Your task to perform on an android device: Add "razer blackwidow" to the cart on walmart.com Image 0: 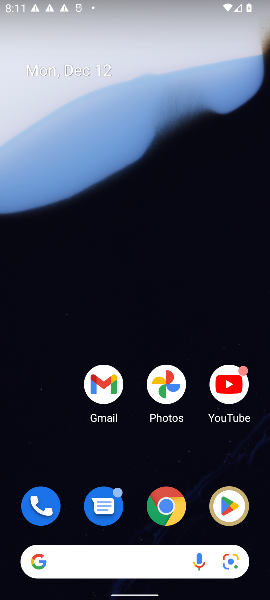
Step 0: click (137, 555)
Your task to perform on an android device: Add "razer blackwidow" to the cart on walmart.com Image 1: 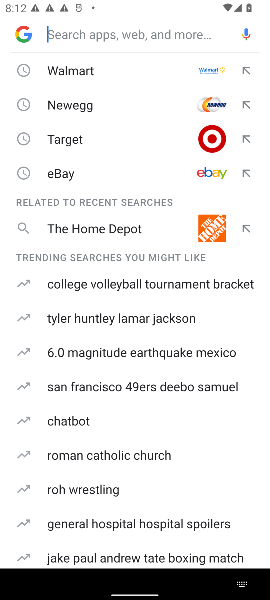
Step 1: type "walmart"
Your task to perform on an android device: Add "razer blackwidow" to the cart on walmart.com Image 2: 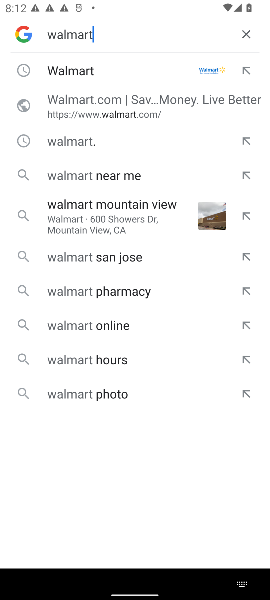
Step 2: type "''"
Your task to perform on an android device: Add "razer blackwidow" to the cart on walmart.com Image 3: 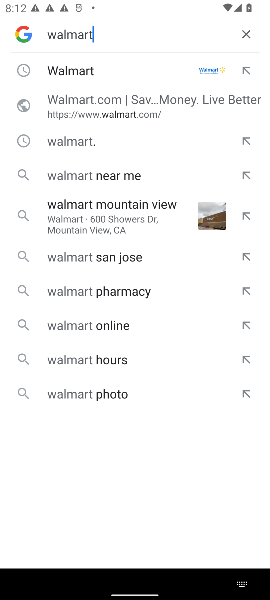
Step 3: click (89, 73)
Your task to perform on an android device: Add "razer blackwidow" to the cart on walmart.com Image 4: 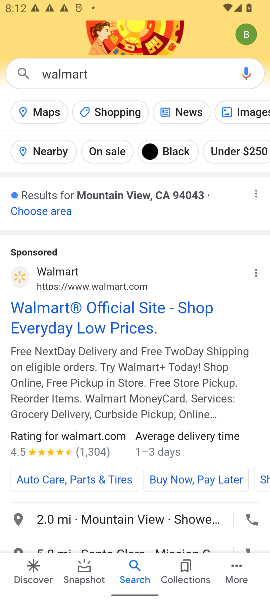
Step 4: click (119, 326)
Your task to perform on an android device: Add "razer blackwidow" to the cart on walmart.com Image 5: 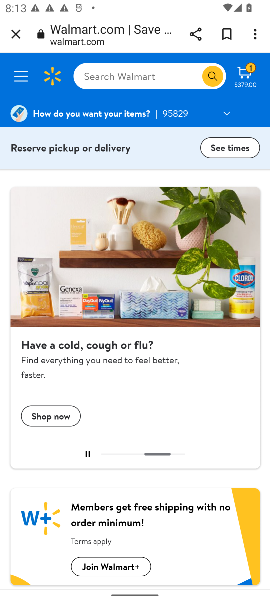
Step 5: click (119, 326)
Your task to perform on an android device: Add "razer blackwidow" to the cart on walmart.com Image 6: 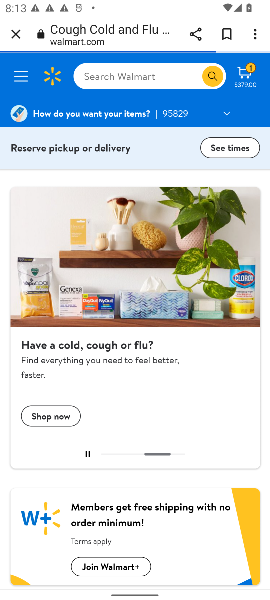
Step 6: click (126, 82)
Your task to perform on an android device: Add "razer blackwidow" to the cart on walmart.com Image 7: 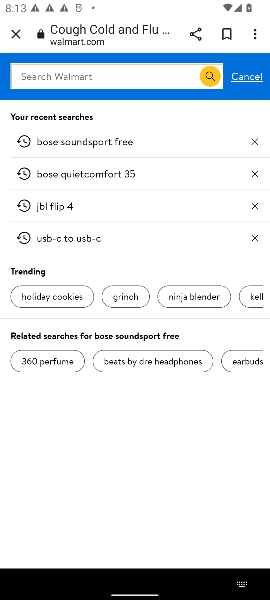
Step 7: type "razzer black window"
Your task to perform on an android device: Add "razer blackwidow" to the cart on walmart.com Image 8: 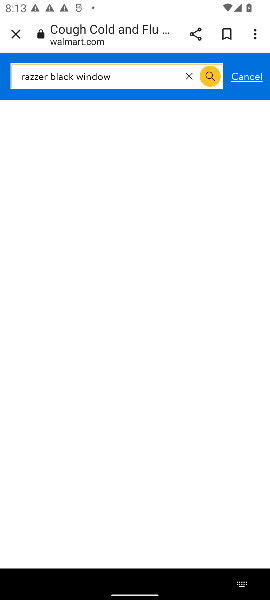
Step 8: click (206, 86)
Your task to perform on an android device: Add "razer blackwidow" to the cart on walmart.com Image 9: 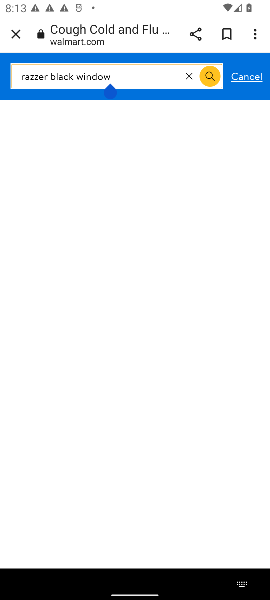
Step 9: task complete